Your task to perform on an android device: Do I have any events this weekend? Image 0: 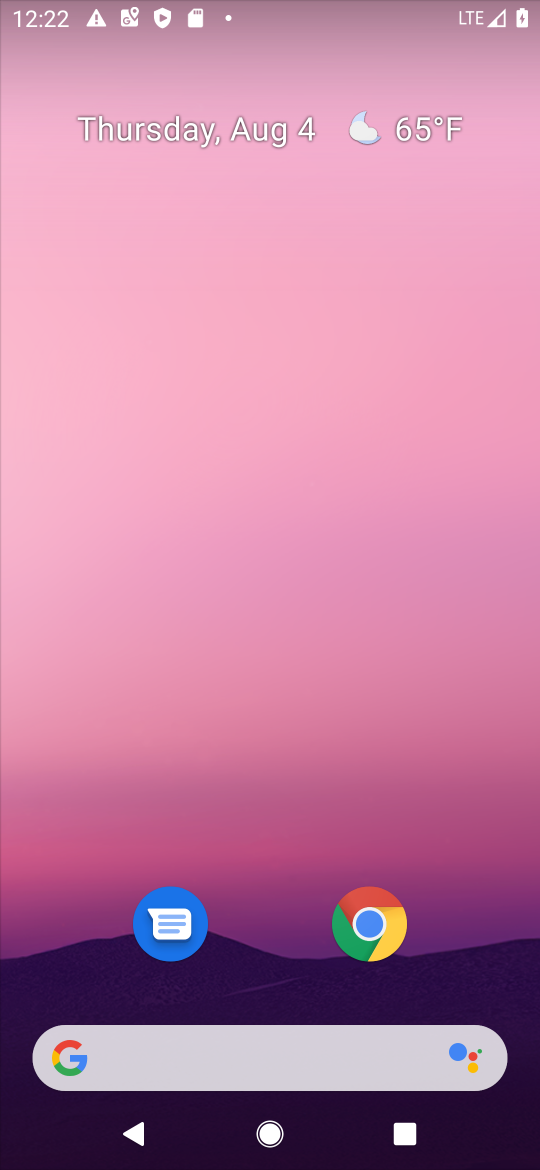
Step 0: drag from (112, 793) to (214, 386)
Your task to perform on an android device: Do I have any events this weekend? Image 1: 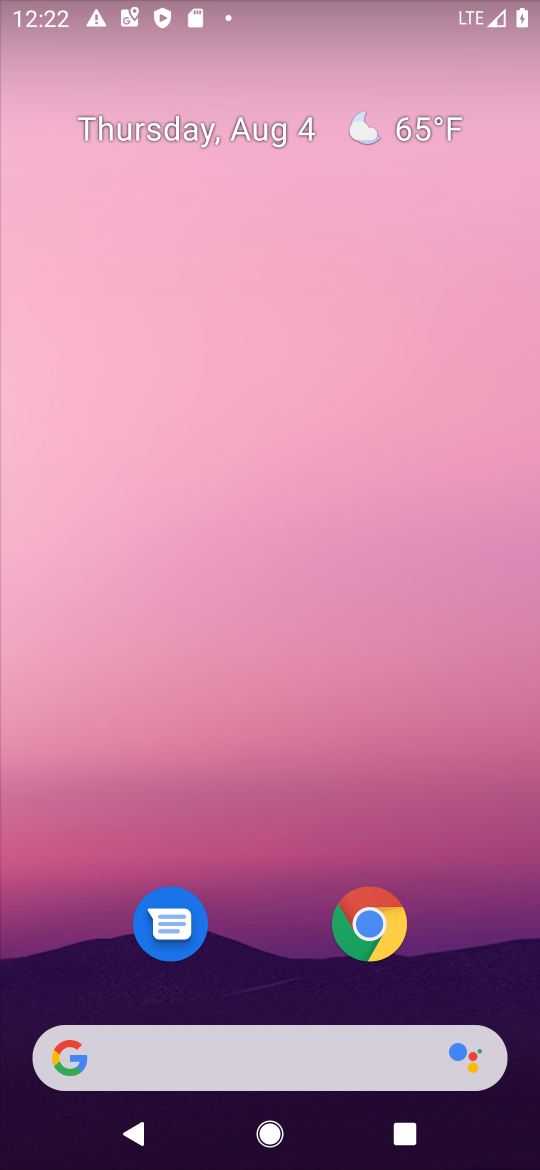
Step 1: drag from (22, 1102) to (308, 117)
Your task to perform on an android device: Do I have any events this weekend? Image 2: 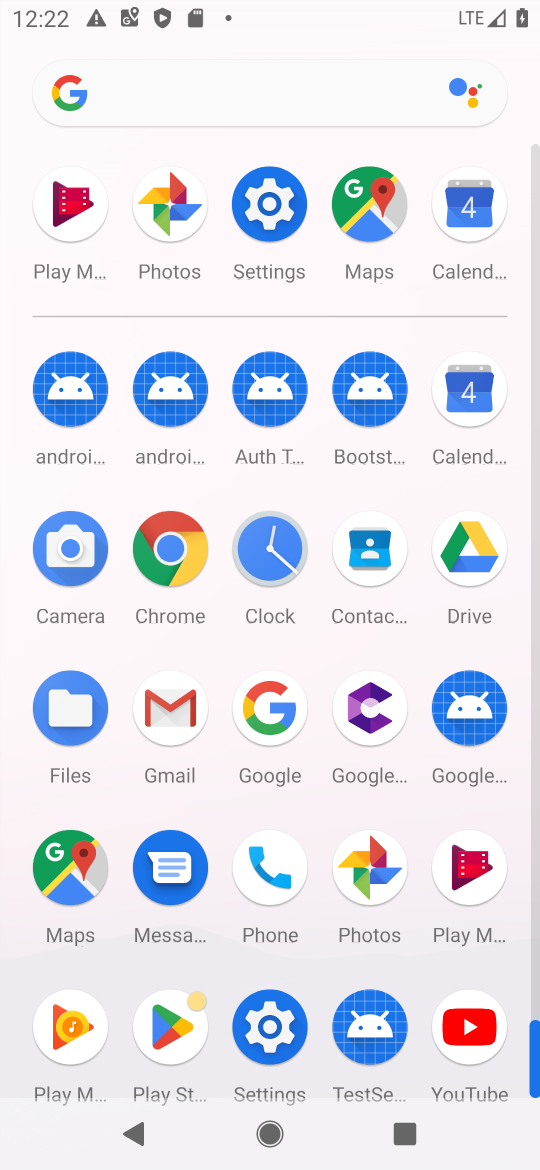
Step 2: click (465, 395)
Your task to perform on an android device: Do I have any events this weekend? Image 3: 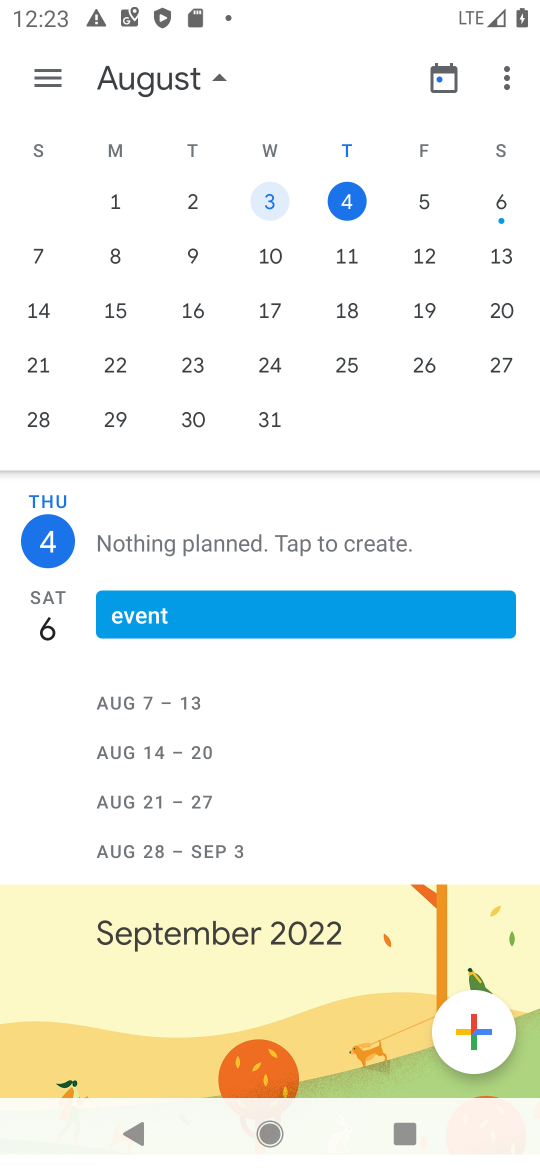
Step 3: task complete